Your task to perform on an android device: Open privacy settings Image 0: 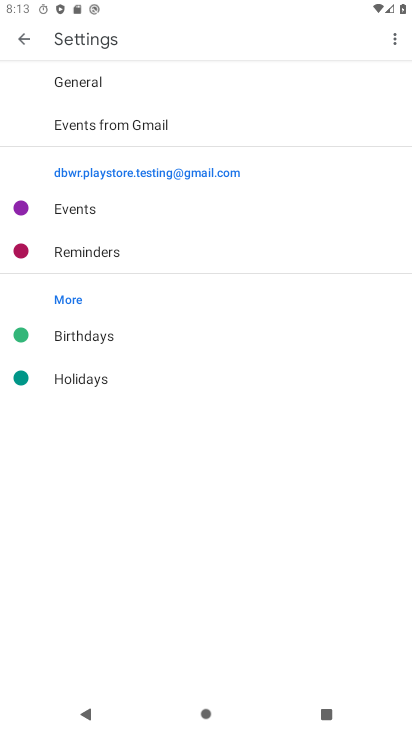
Step 0: press home button
Your task to perform on an android device: Open privacy settings Image 1: 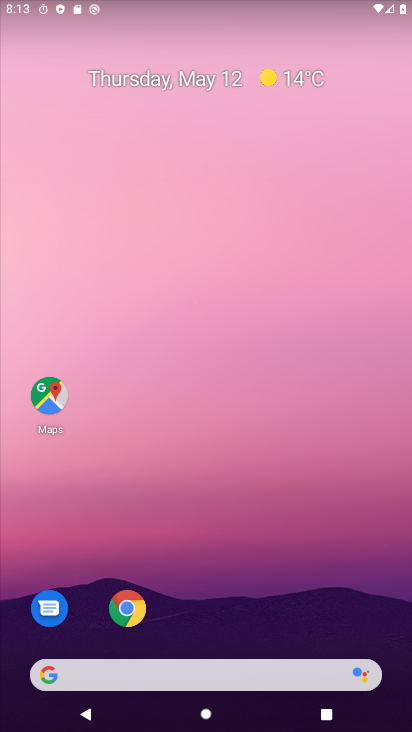
Step 1: drag from (205, 569) to (279, 61)
Your task to perform on an android device: Open privacy settings Image 2: 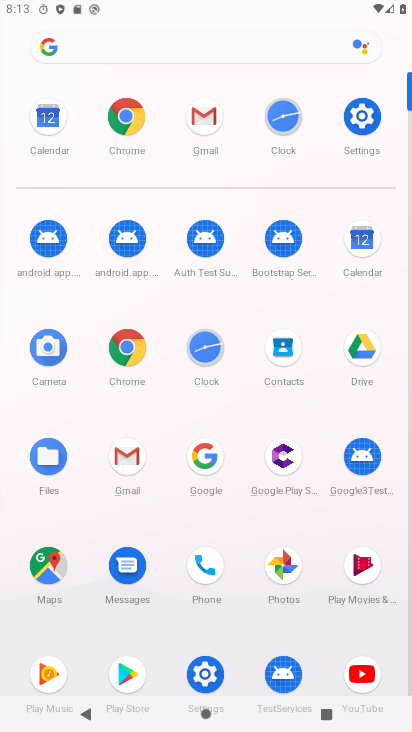
Step 2: click (362, 119)
Your task to perform on an android device: Open privacy settings Image 3: 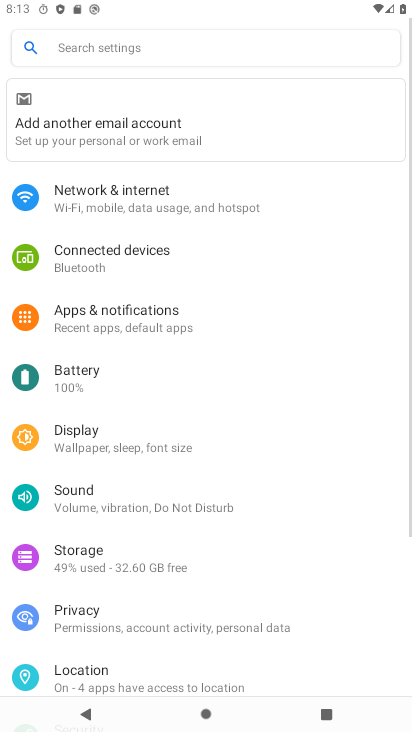
Step 3: task complete